Your task to perform on an android device: change your default location settings in chrome Image 0: 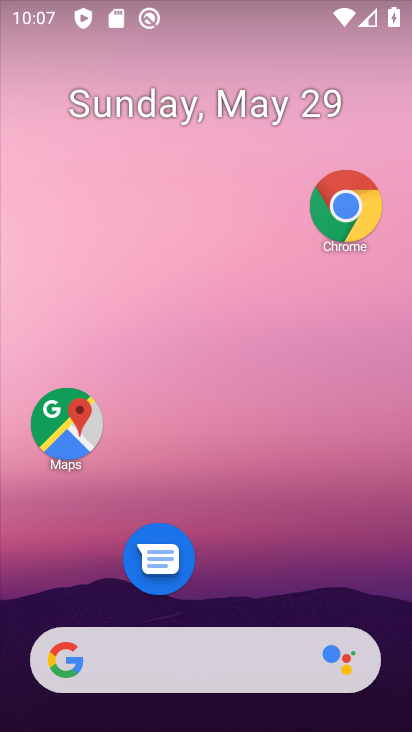
Step 0: click (342, 216)
Your task to perform on an android device: change your default location settings in chrome Image 1: 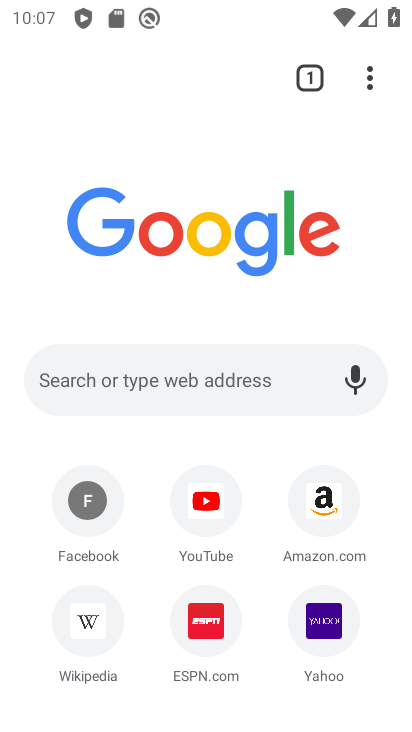
Step 1: click (372, 89)
Your task to perform on an android device: change your default location settings in chrome Image 2: 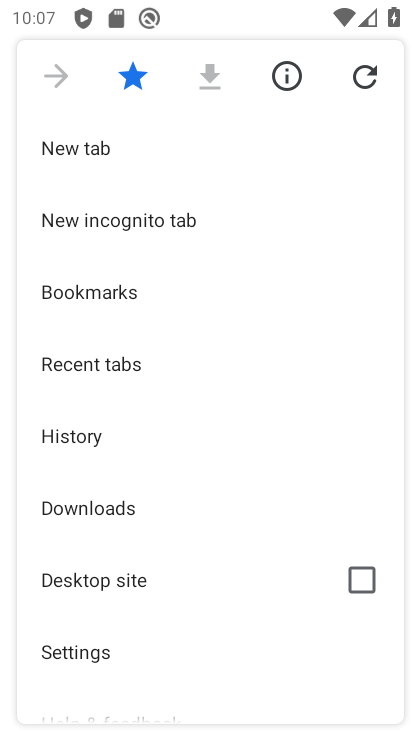
Step 2: click (99, 657)
Your task to perform on an android device: change your default location settings in chrome Image 3: 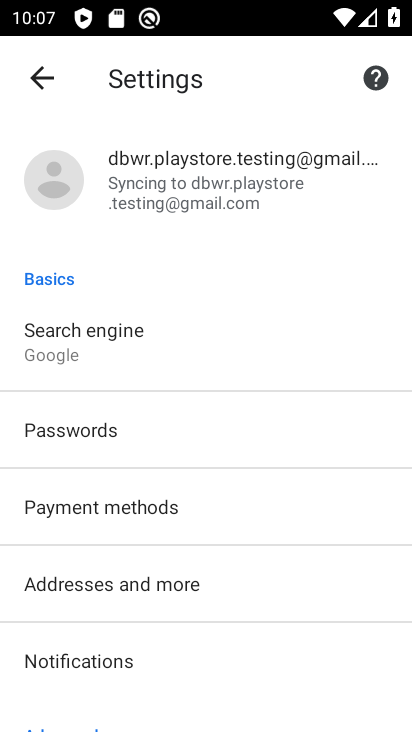
Step 3: drag from (110, 630) to (177, 189)
Your task to perform on an android device: change your default location settings in chrome Image 4: 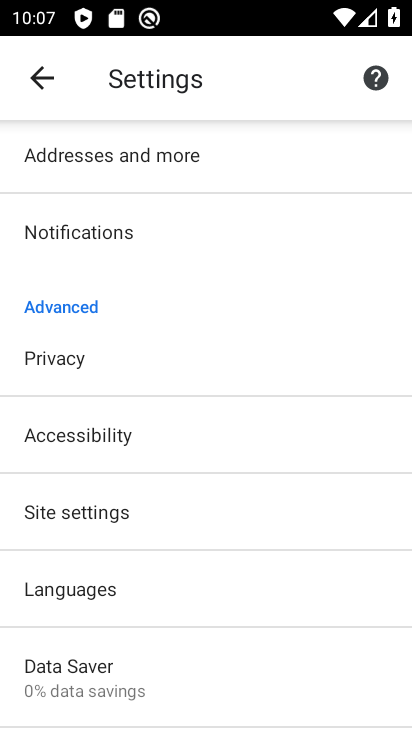
Step 4: click (72, 508)
Your task to perform on an android device: change your default location settings in chrome Image 5: 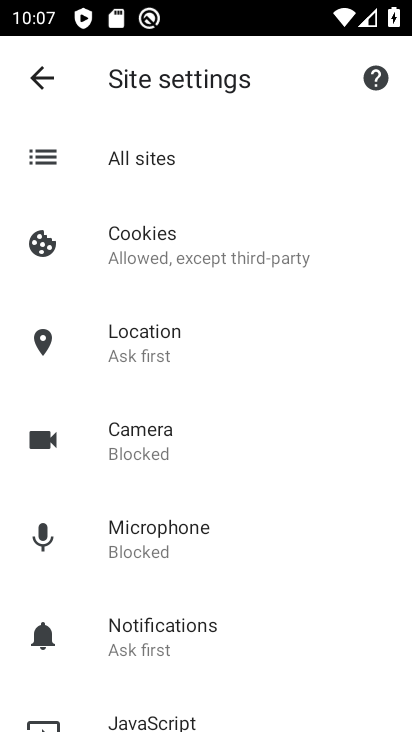
Step 5: click (153, 357)
Your task to perform on an android device: change your default location settings in chrome Image 6: 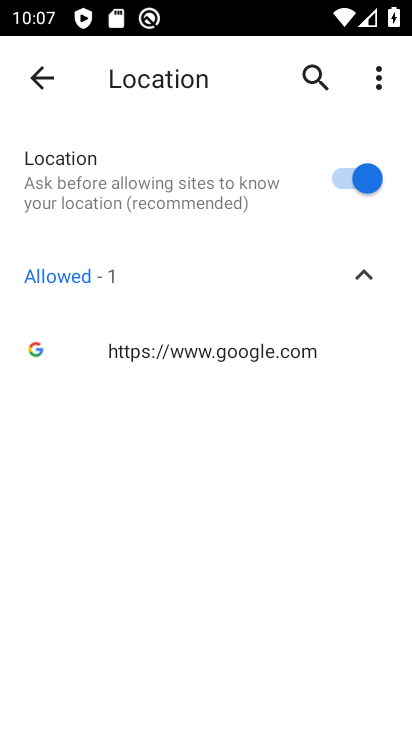
Step 6: click (334, 189)
Your task to perform on an android device: change your default location settings in chrome Image 7: 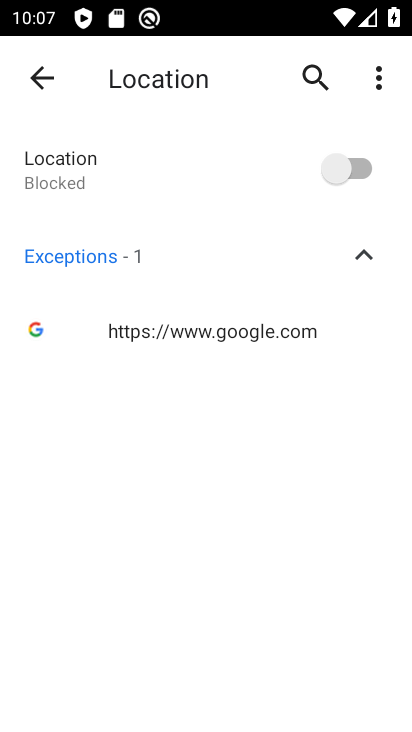
Step 7: task complete